Your task to perform on an android device: delete browsing data in the chrome app Image 0: 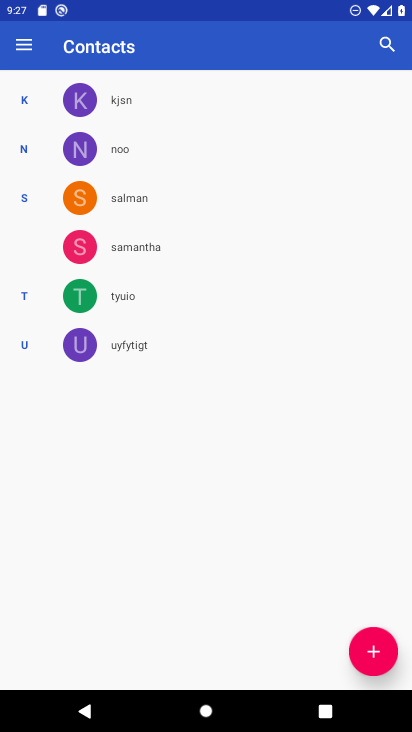
Step 0: press home button
Your task to perform on an android device: delete browsing data in the chrome app Image 1: 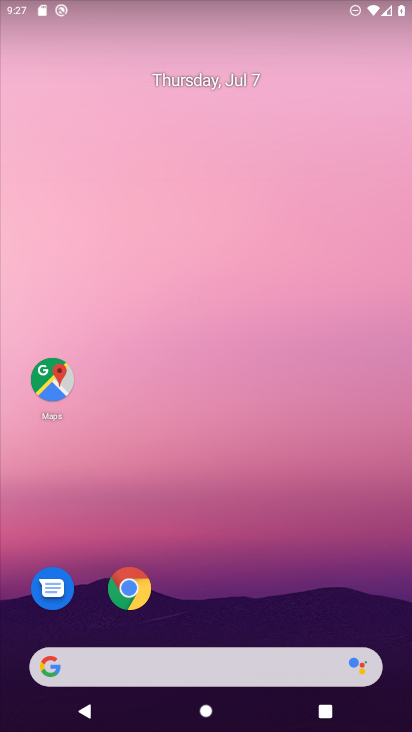
Step 1: click (126, 585)
Your task to perform on an android device: delete browsing data in the chrome app Image 2: 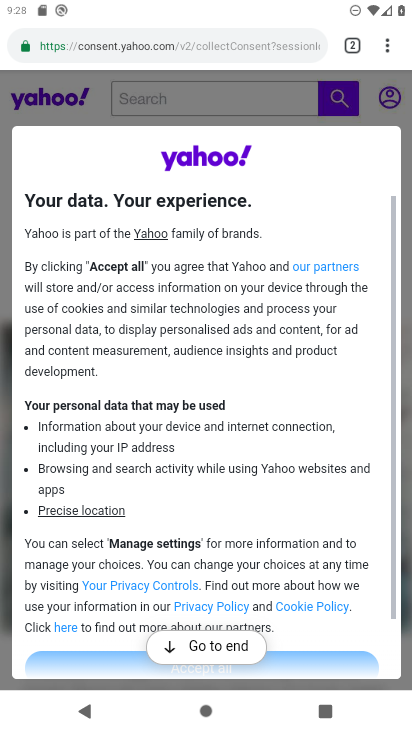
Step 2: click (392, 41)
Your task to perform on an android device: delete browsing data in the chrome app Image 3: 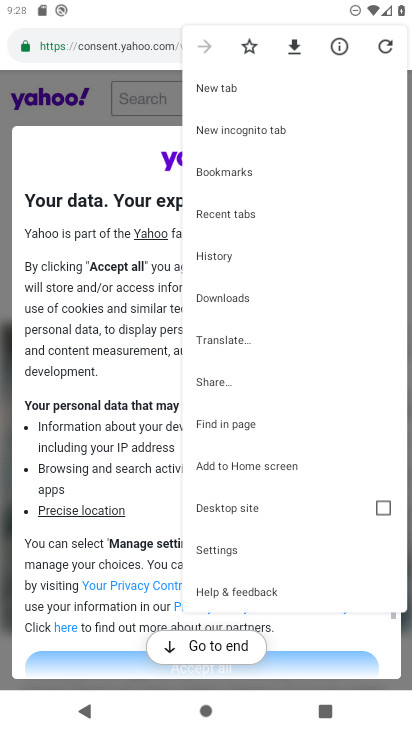
Step 3: click (209, 252)
Your task to perform on an android device: delete browsing data in the chrome app Image 4: 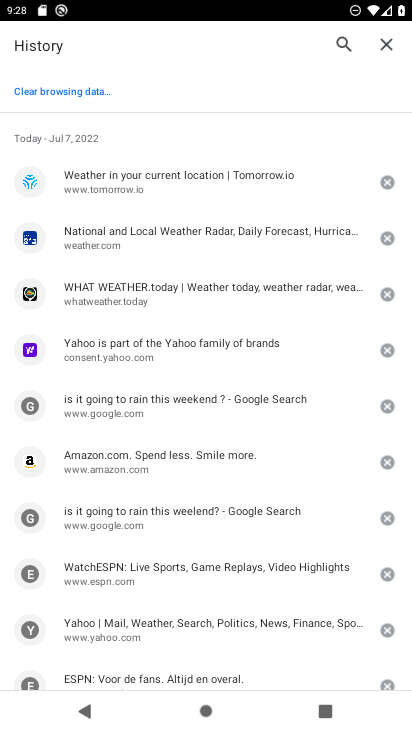
Step 4: click (100, 97)
Your task to perform on an android device: delete browsing data in the chrome app Image 5: 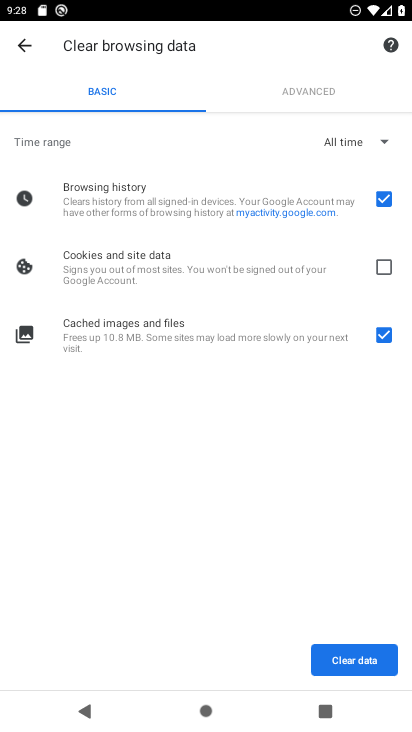
Step 5: click (382, 333)
Your task to perform on an android device: delete browsing data in the chrome app Image 6: 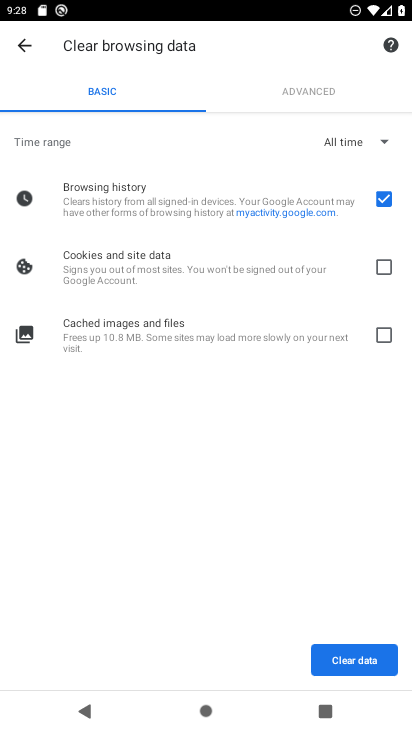
Step 6: click (370, 653)
Your task to perform on an android device: delete browsing data in the chrome app Image 7: 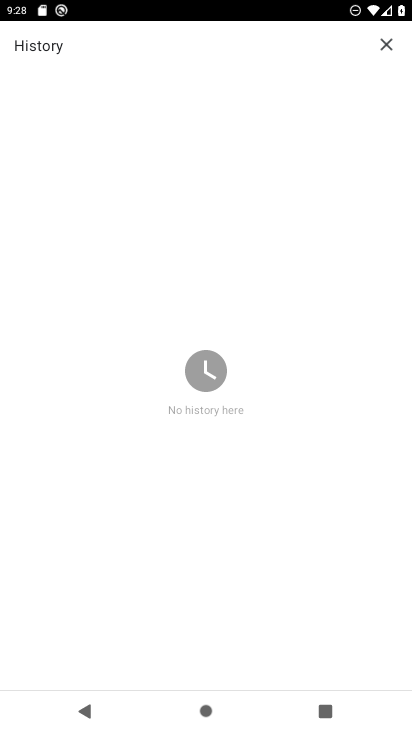
Step 7: task complete